Your task to perform on an android device: turn off smart reply in the gmail app Image 0: 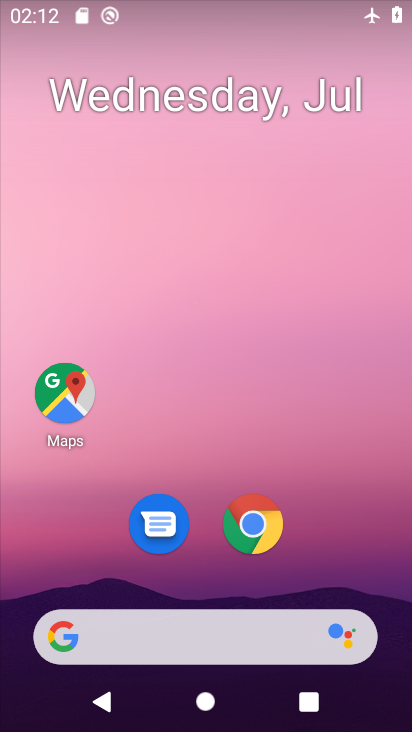
Step 0: drag from (319, 535) to (335, 0)
Your task to perform on an android device: turn off smart reply in the gmail app Image 1: 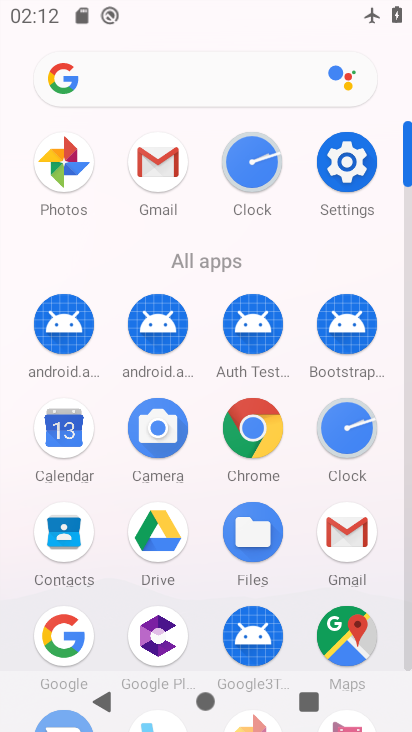
Step 1: click (159, 171)
Your task to perform on an android device: turn off smart reply in the gmail app Image 2: 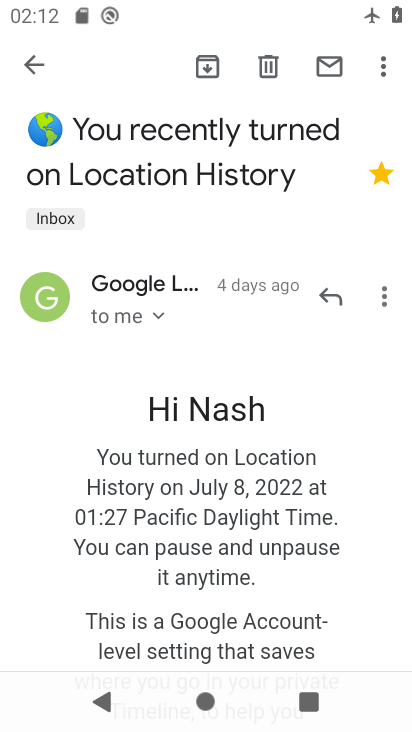
Step 2: click (37, 58)
Your task to perform on an android device: turn off smart reply in the gmail app Image 3: 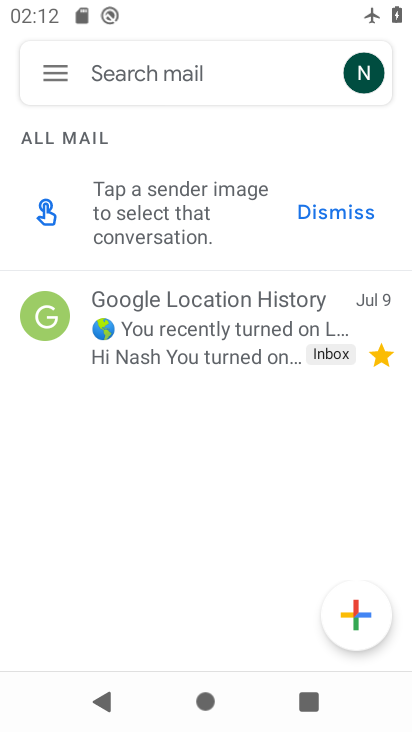
Step 3: click (54, 69)
Your task to perform on an android device: turn off smart reply in the gmail app Image 4: 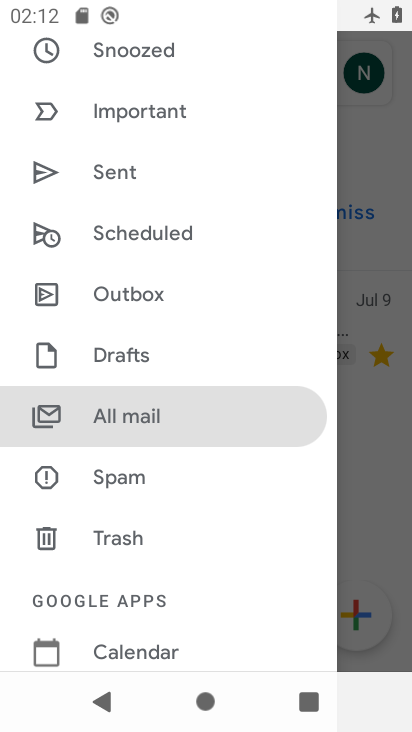
Step 4: drag from (185, 512) to (230, 107)
Your task to perform on an android device: turn off smart reply in the gmail app Image 5: 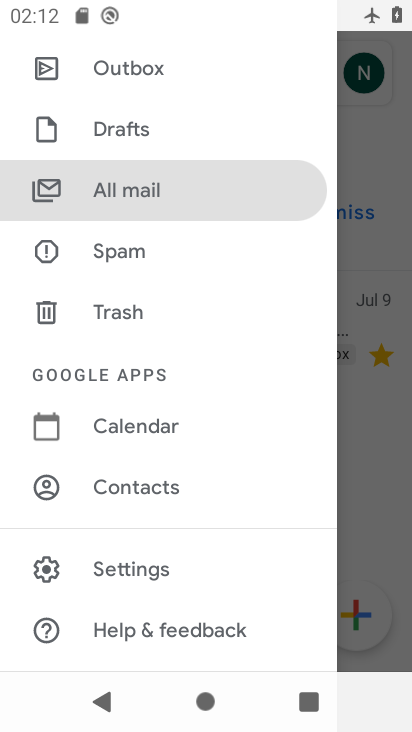
Step 5: click (139, 571)
Your task to perform on an android device: turn off smart reply in the gmail app Image 6: 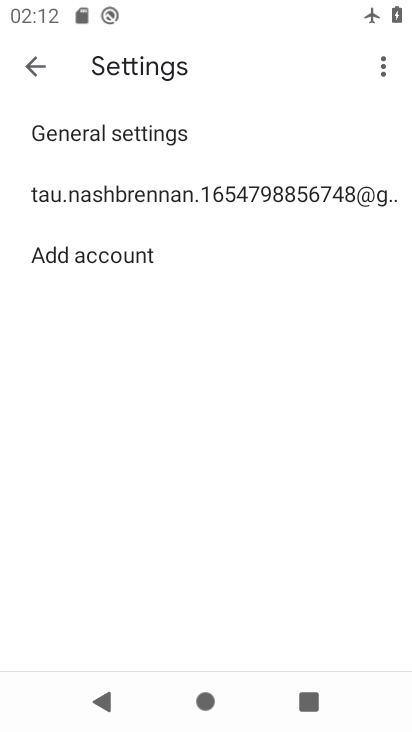
Step 6: click (306, 192)
Your task to perform on an android device: turn off smart reply in the gmail app Image 7: 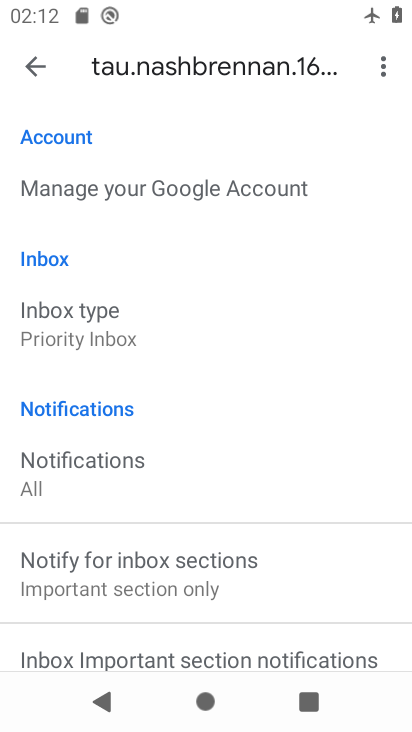
Step 7: drag from (256, 497) to (241, 10)
Your task to perform on an android device: turn off smart reply in the gmail app Image 8: 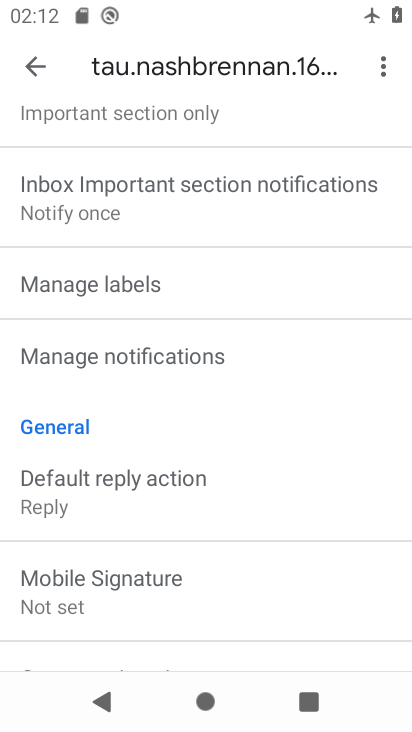
Step 8: drag from (216, 602) to (219, 11)
Your task to perform on an android device: turn off smart reply in the gmail app Image 9: 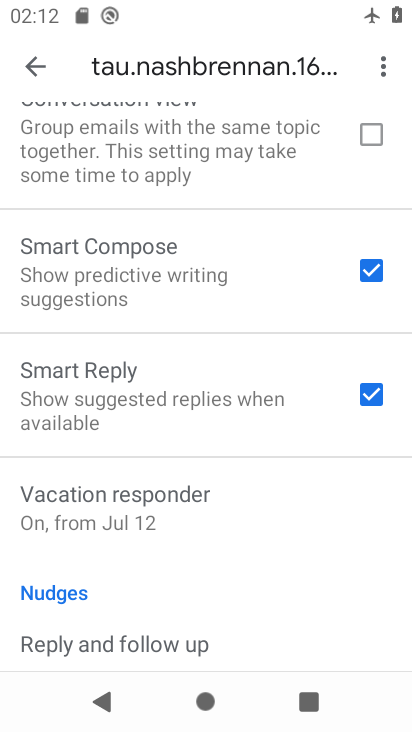
Step 9: click (376, 391)
Your task to perform on an android device: turn off smart reply in the gmail app Image 10: 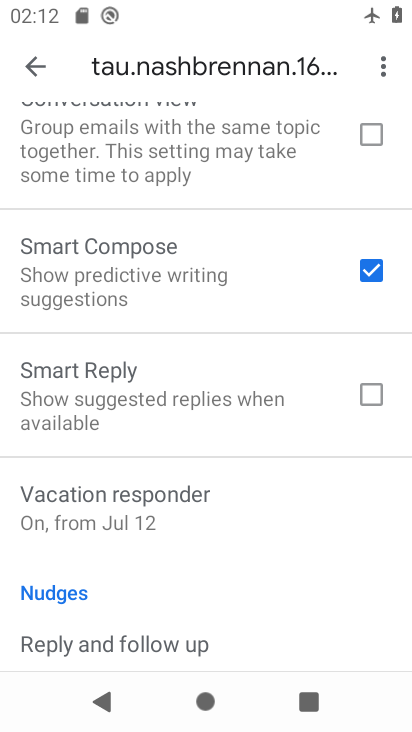
Step 10: task complete